Your task to perform on an android device: snooze an email in the gmail app Image 0: 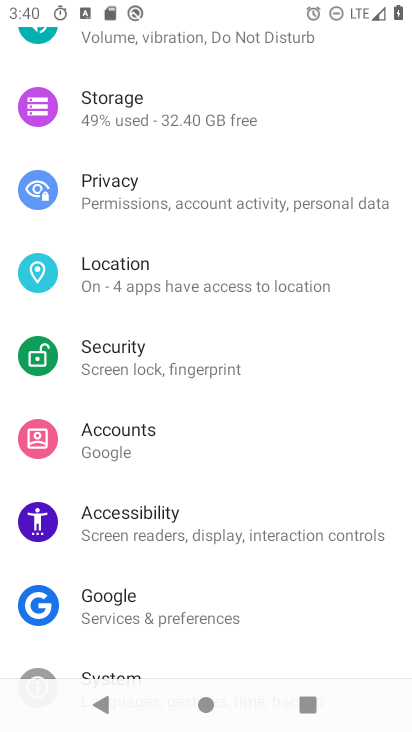
Step 0: press home button
Your task to perform on an android device: snooze an email in the gmail app Image 1: 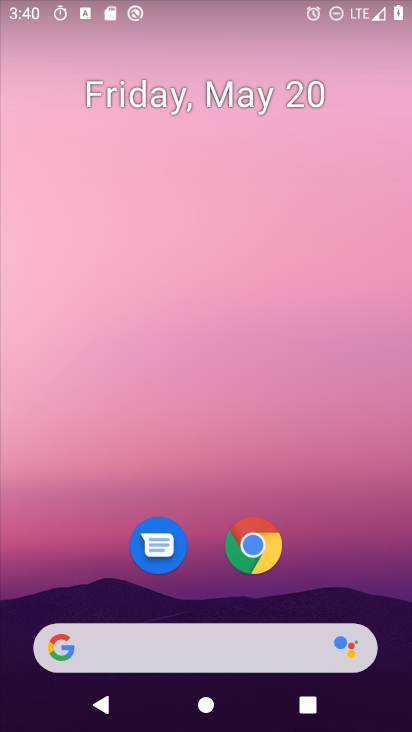
Step 1: drag from (335, 568) to (338, 6)
Your task to perform on an android device: snooze an email in the gmail app Image 2: 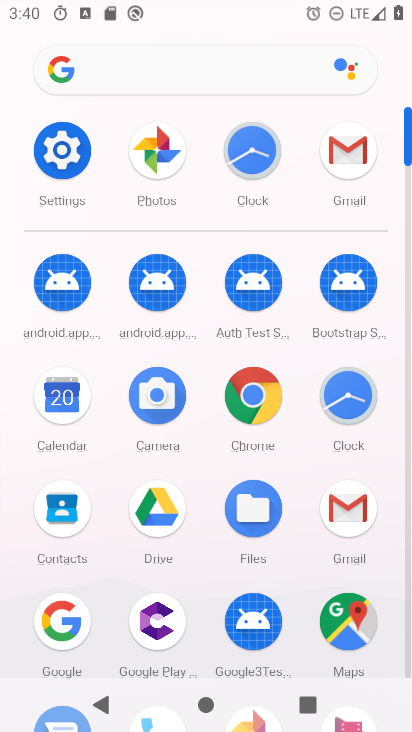
Step 2: click (357, 521)
Your task to perform on an android device: snooze an email in the gmail app Image 3: 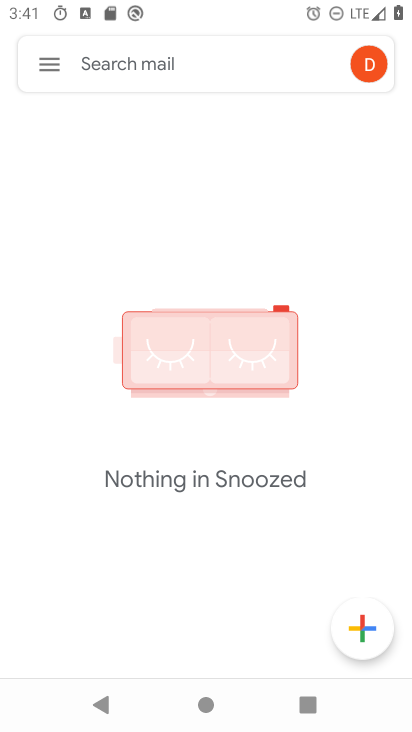
Step 3: press home button
Your task to perform on an android device: snooze an email in the gmail app Image 4: 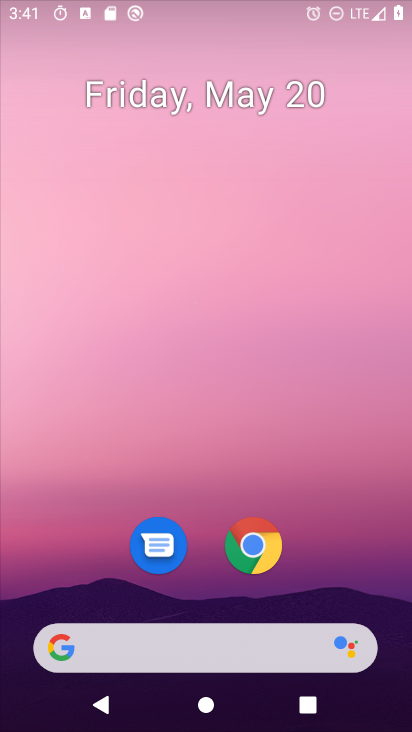
Step 4: drag from (239, 529) to (284, 3)
Your task to perform on an android device: snooze an email in the gmail app Image 5: 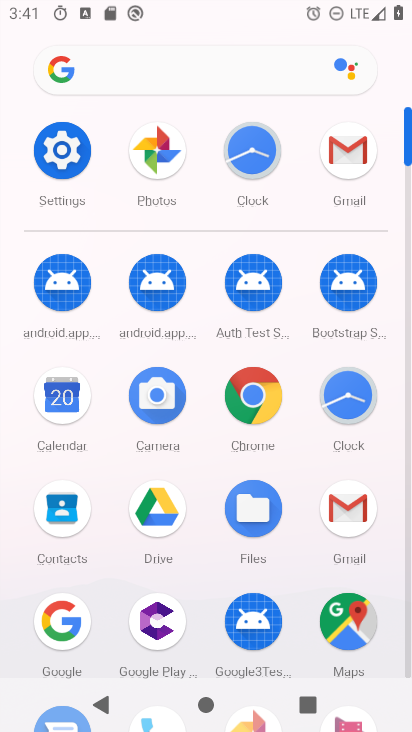
Step 5: click (353, 502)
Your task to perform on an android device: snooze an email in the gmail app Image 6: 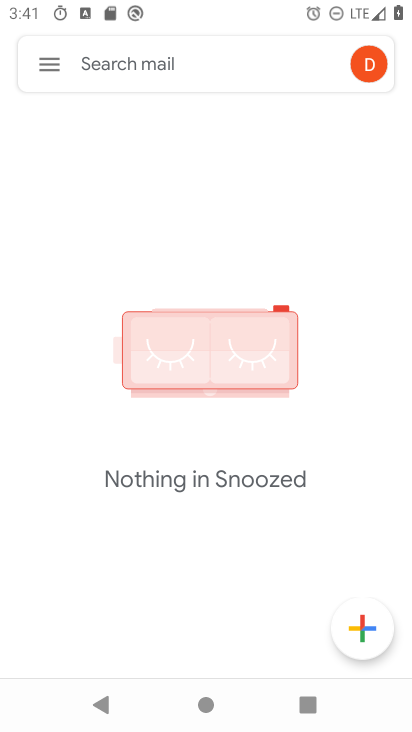
Step 6: task complete